Your task to perform on an android device: Open CNN.com Image 0: 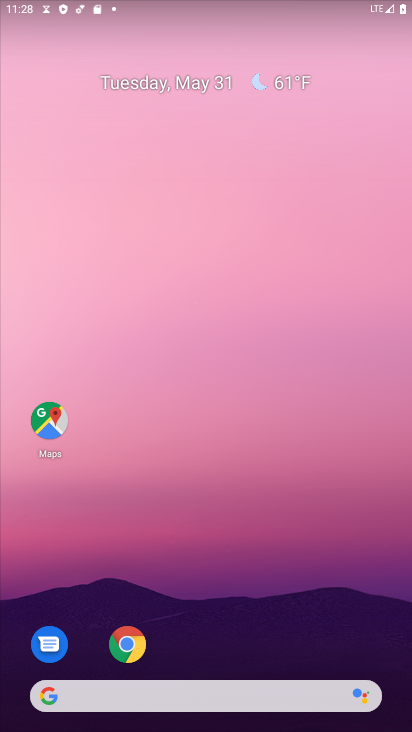
Step 0: click (126, 639)
Your task to perform on an android device: Open CNN.com Image 1: 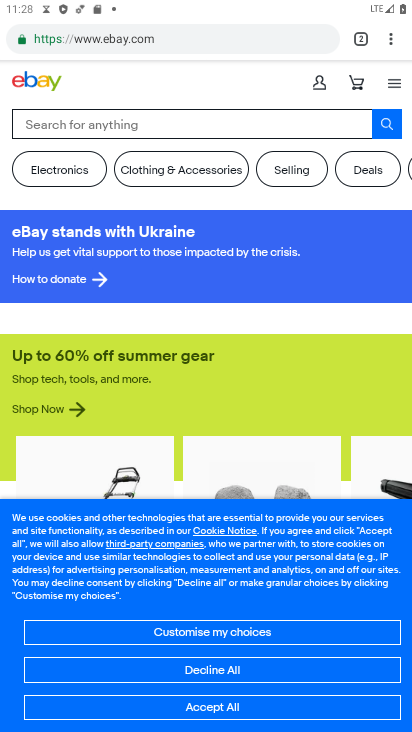
Step 1: click (357, 41)
Your task to perform on an android device: Open CNN.com Image 2: 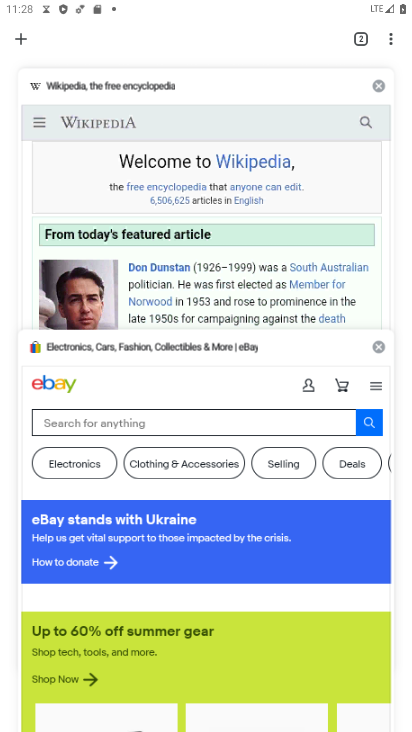
Step 2: click (26, 34)
Your task to perform on an android device: Open CNN.com Image 3: 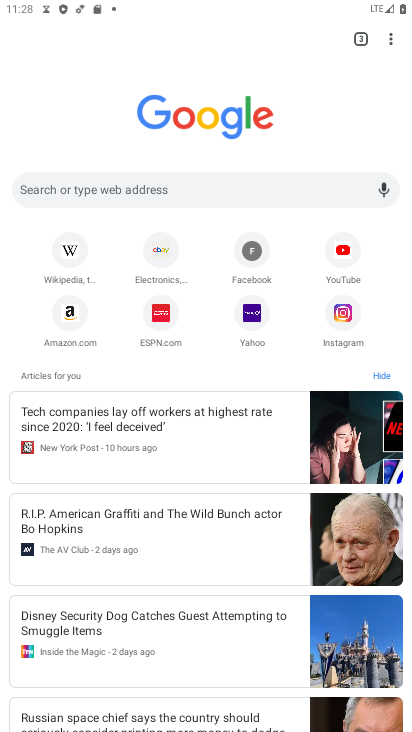
Step 3: click (162, 320)
Your task to perform on an android device: Open CNN.com Image 4: 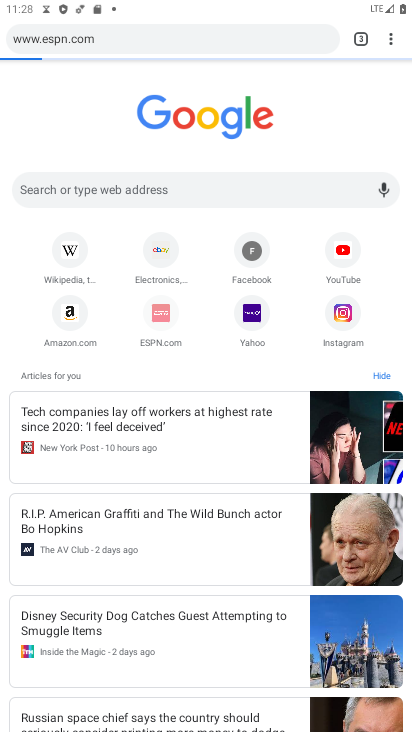
Step 4: click (162, 320)
Your task to perform on an android device: Open CNN.com Image 5: 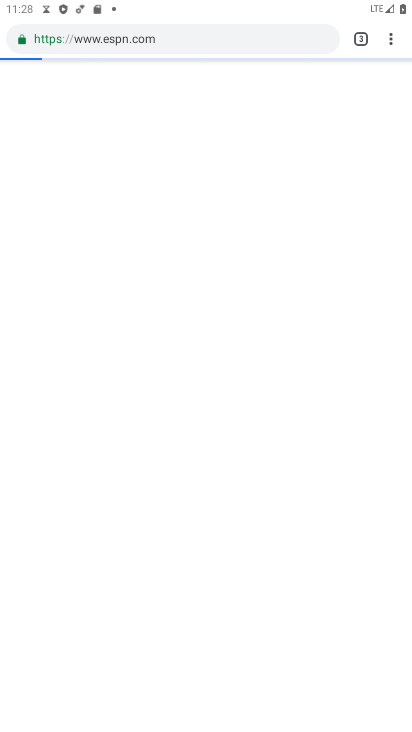
Step 5: click (357, 37)
Your task to perform on an android device: Open CNN.com Image 6: 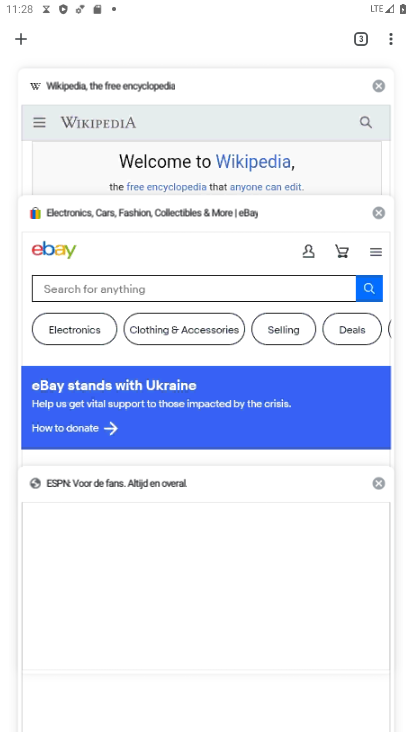
Step 6: click (12, 33)
Your task to perform on an android device: Open CNN.com Image 7: 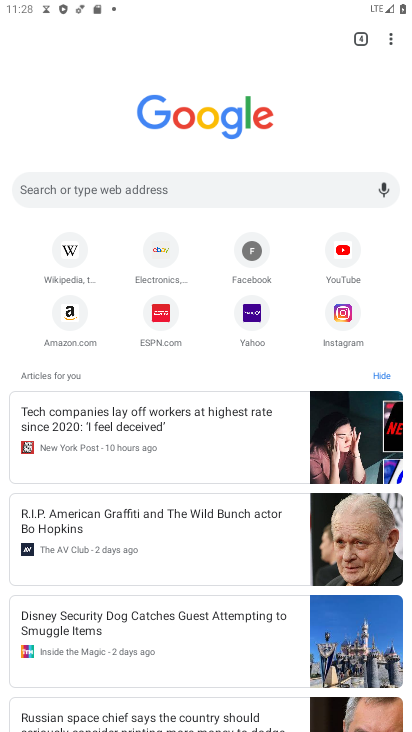
Step 7: type "cnn.com"
Your task to perform on an android device: Open CNN.com Image 8: 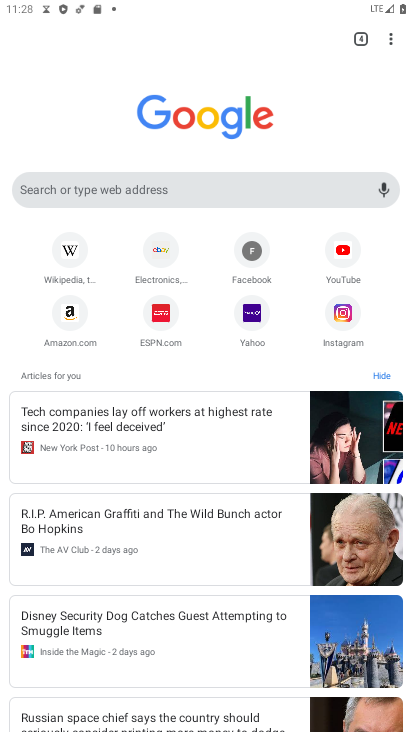
Step 8: click (142, 186)
Your task to perform on an android device: Open CNN.com Image 9: 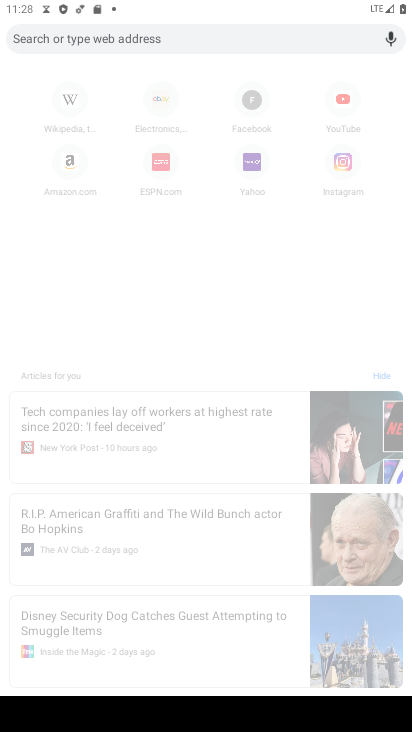
Step 9: type "cnn.com"
Your task to perform on an android device: Open CNN.com Image 10: 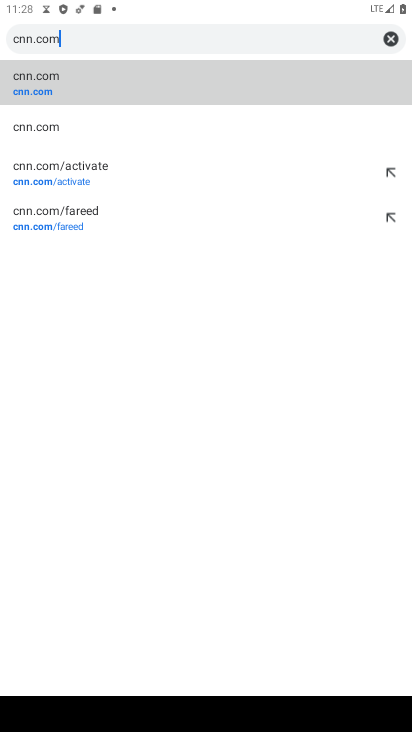
Step 10: click (111, 84)
Your task to perform on an android device: Open CNN.com Image 11: 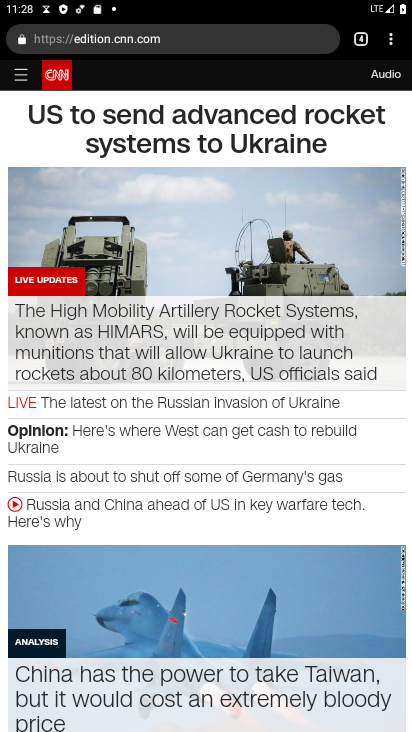
Step 11: task complete